Your task to perform on an android device: Open the calendar and show me this week's events Image 0: 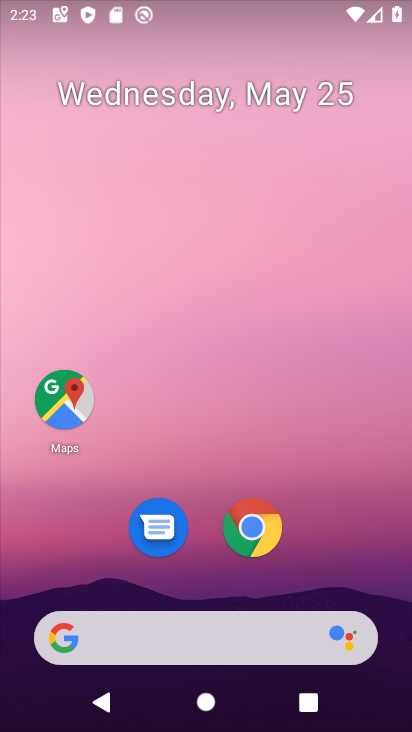
Step 0: drag from (164, 589) to (238, 217)
Your task to perform on an android device: Open the calendar and show me this week's events Image 1: 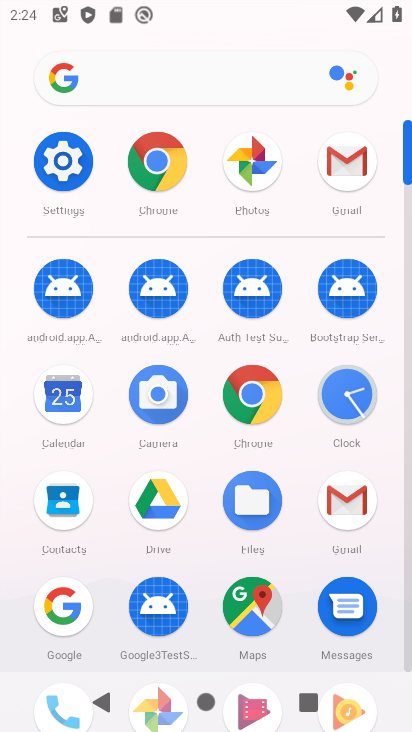
Step 1: click (59, 391)
Your task to perform on an android device: Open the calendar and show me this week's events Image 2: 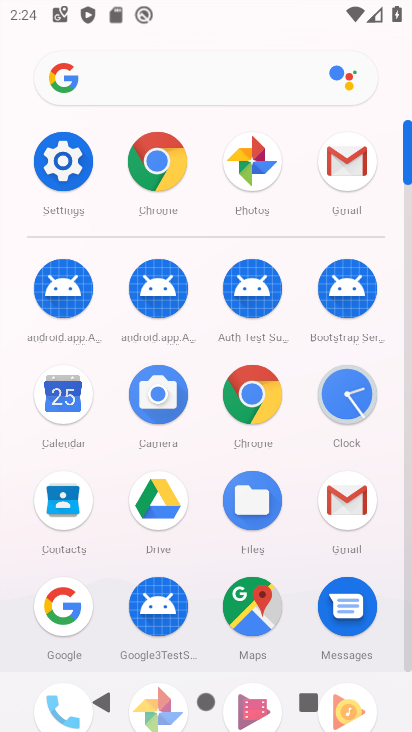
Step 2: click (59, 391)
Your task to perform on an android device: Open the calendar and show me this week's events Image 3: 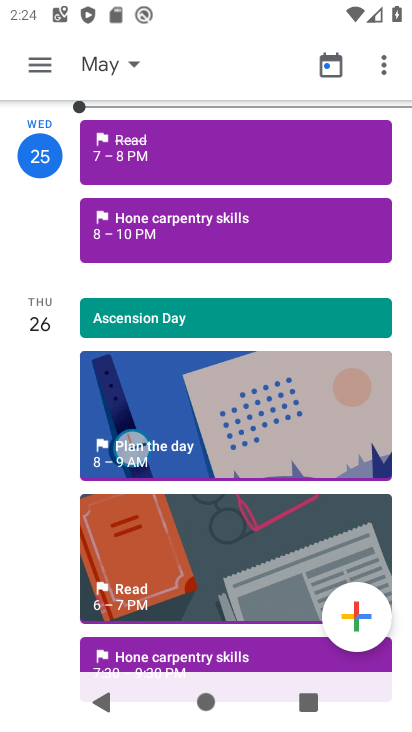
Step 3: click (117, 63)
Your task to perform on an android device: Open the calendar and show me this week's events Image 4: 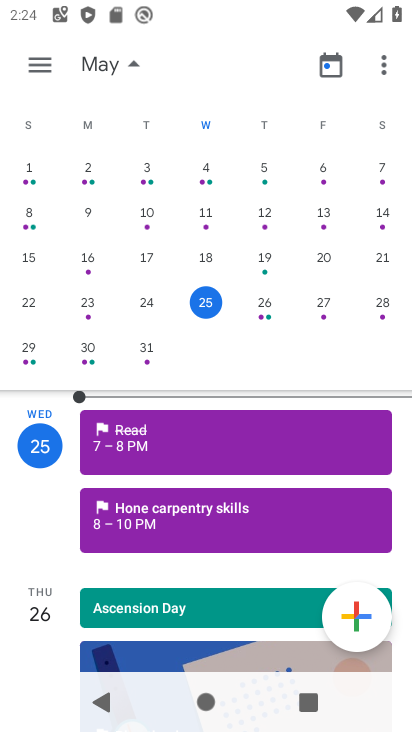
Step 4: click (318, 304)
Your task to perform on an android device: Open the calendar and show me this week's events Image 5: 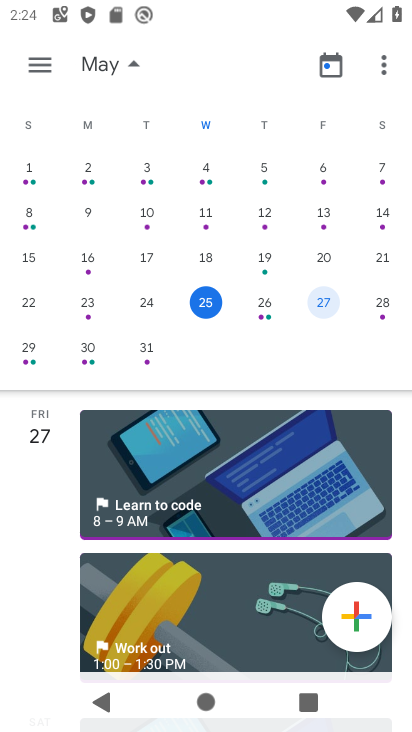
Step 5: task complete